Your task to perform on an android device: choose inbox layout in the gmail app Image 0: 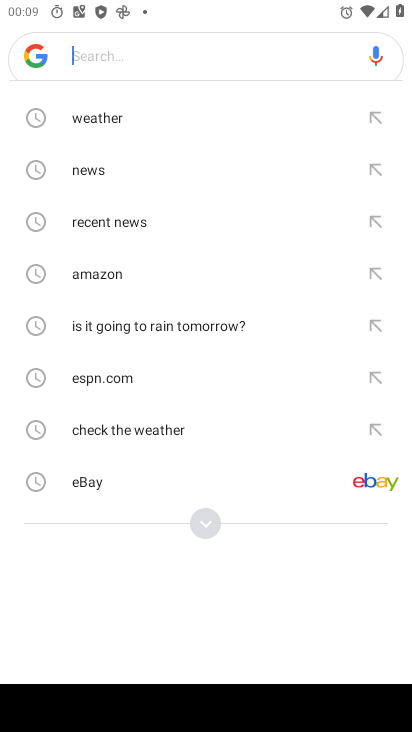
Step 0: press home button
Your task to perform on an android device: choose inbox layout in the gmail app Image 1: 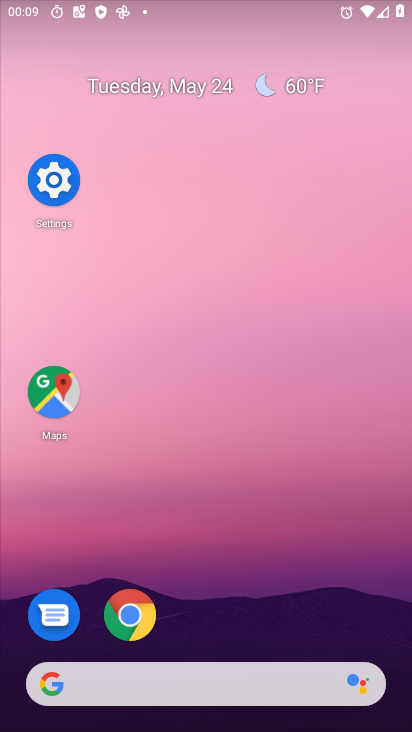
Step 1: drag from (203, 597) to (263, 167)
Your task to perform on an android device: choose inbox layout in the gmail app Image 2: 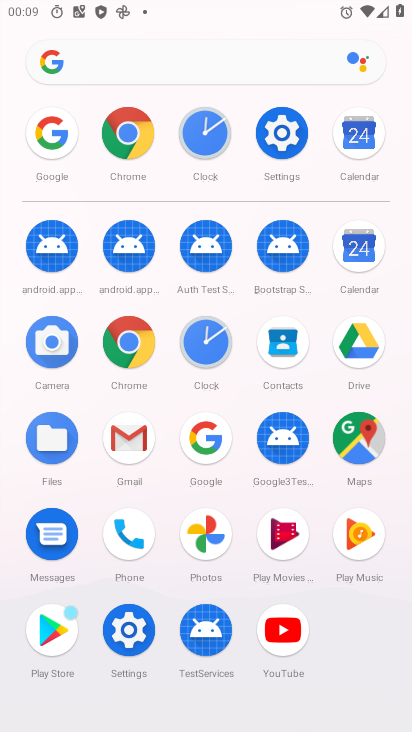
Step 2: click (135, 431)
Your task to perform on an android device: choose inbox layout in the gmail app Image 3: 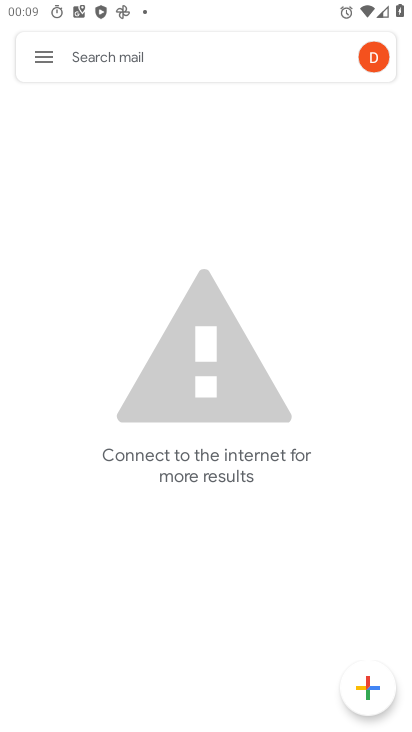
Step 3: click (48, 59)
Your task to perform on an android device: choose inbox layout in the gmail app Image 4: 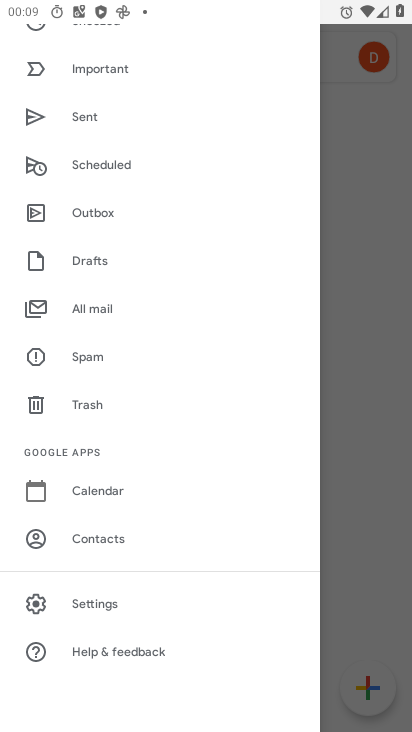
Step 4: click (113, 600)
Your task to perform on an android device: choose inbox layout in the gmail app Image 5: 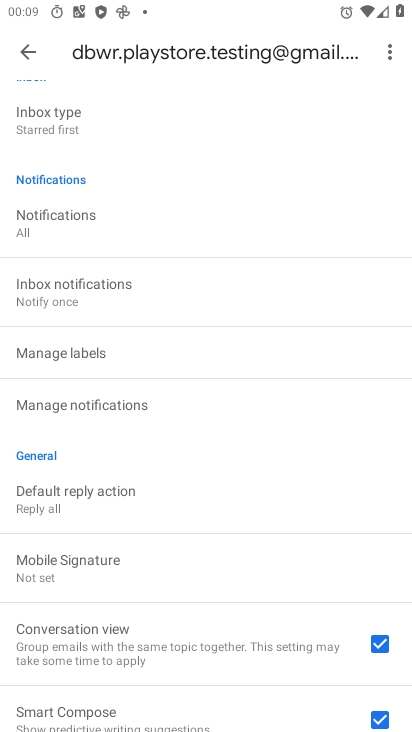
Step 5: drag from (96, 202) to (128, 525)
Your task to perform on an android device: choose inbox layout in the gmail app Image 6: 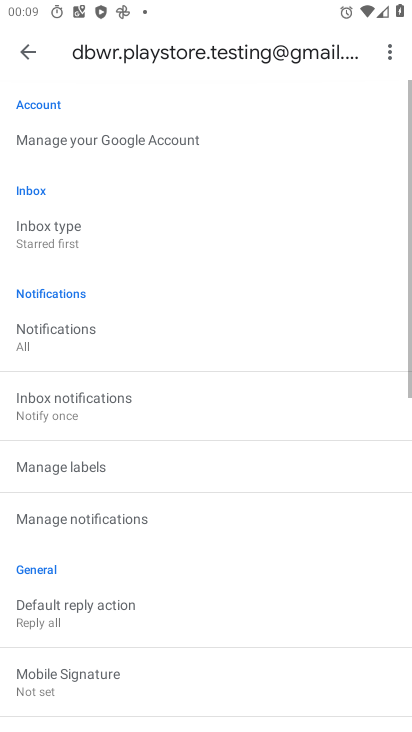
Step 6: click (51, 240)
Your task to perform on an android device: choose inbox layout in the gmail app Image 7: 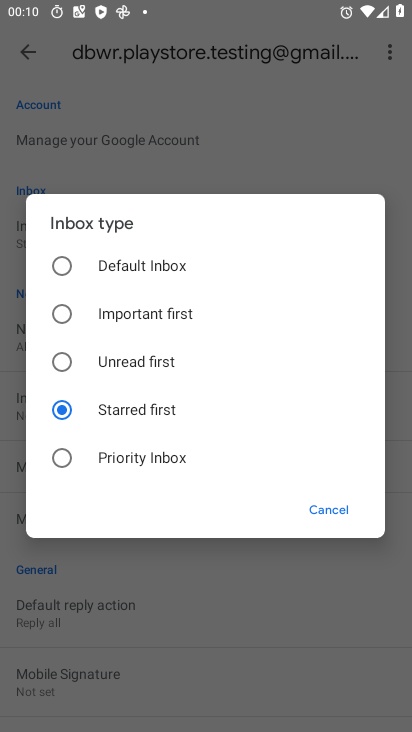
Step 7: click (115, 271)
Your task to perform on an android device: choose inbox layout in the gmail app Image 8: 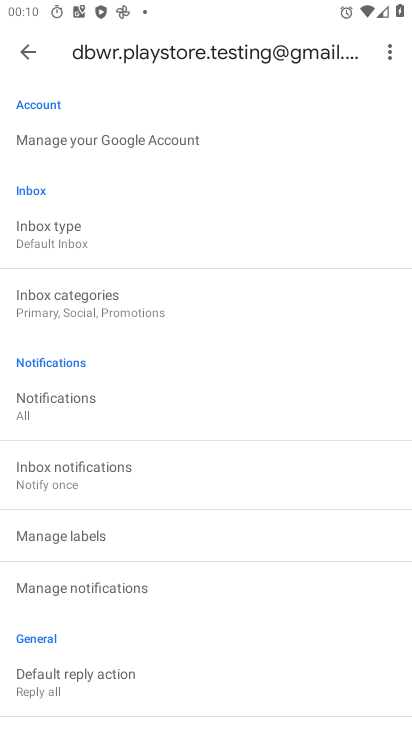
Step 8: task complete